Your task to perform on an android device: turn pop-ups off in chrome Image 0: 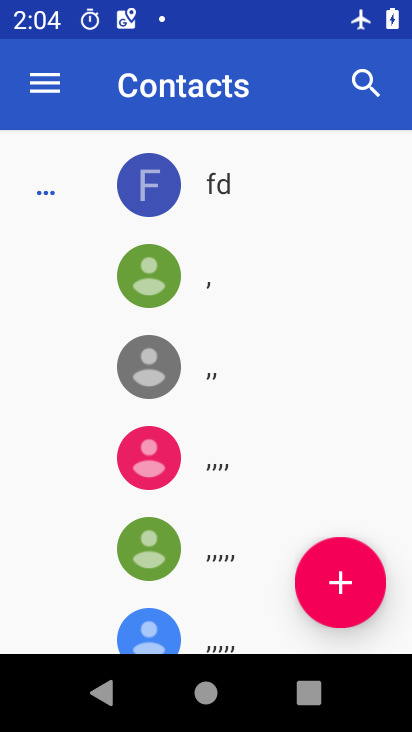
Step 0: press home button
Your task to perform on an android device: turn pop-ups off in chrome Image 1: 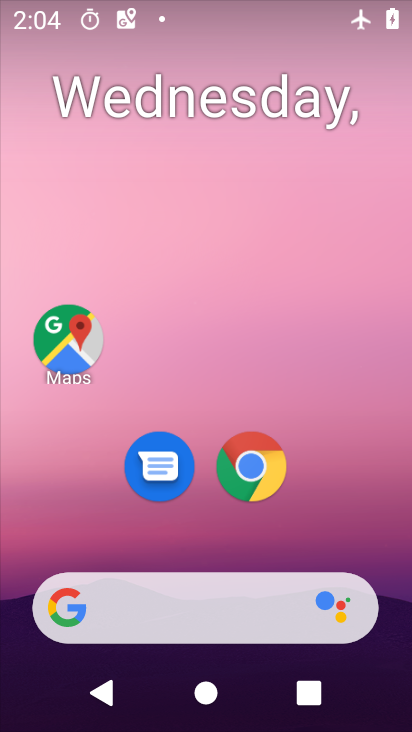
Step 1: click (266, 471)
Your task to perform on an android device: turn pop-ups off in chrome Image 2: 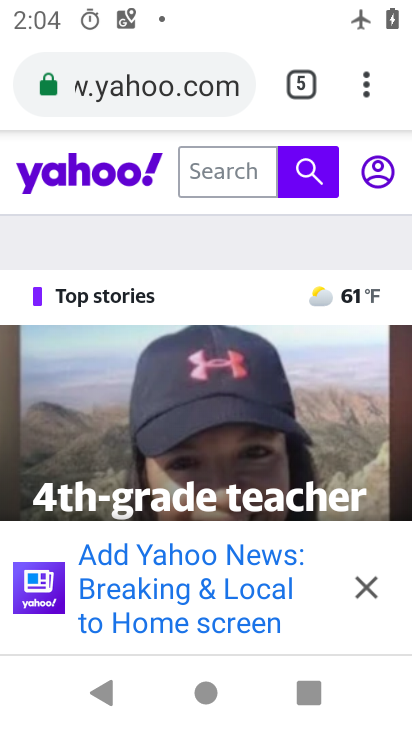
Step 2: click (350, 85)
Your task to perform on an android device: turn pop-ups off in chrome Image 3: 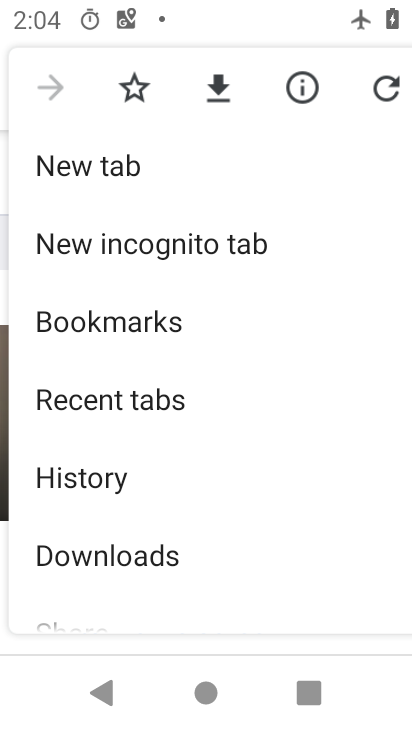
Step 3: drag from (226, 518) to (224, 298)
Your task to perform on an android device: turn pop-ups off in chrome Image 4: 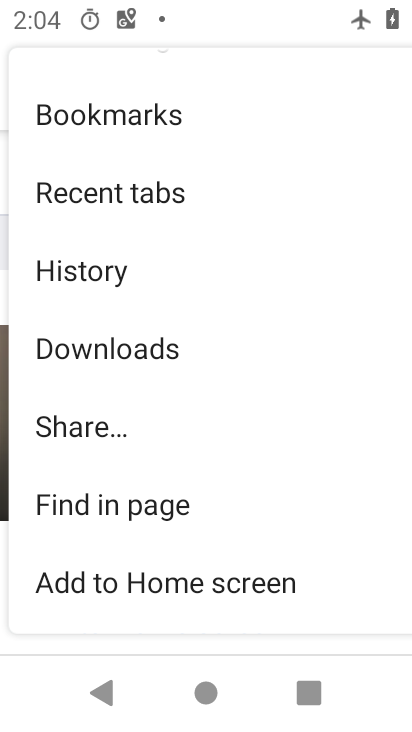
Step 4: drag from (156, 421) to (169, 280)
Your task to perform on an android device: turn pop-ups off in chrome Image 5: 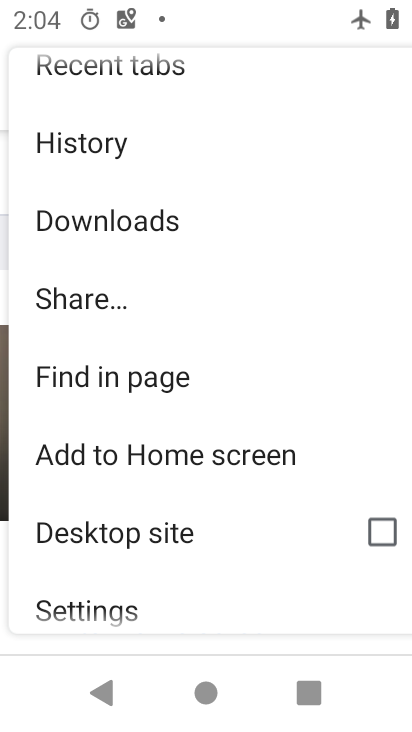
Step 5: drag from (110, 592) to (141, 280)
Your task to perform on an android device: turn pop-ups off in chrome Image 6: 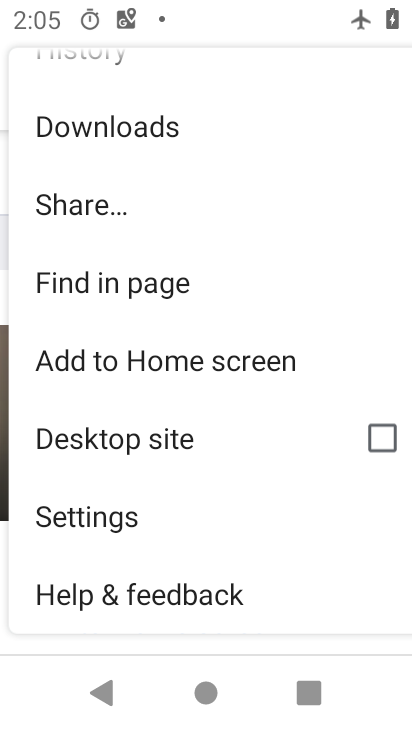
Step 6: click (111, 526)
Your task to perform on an android device: turn pop-ups off in chrome Image 7: 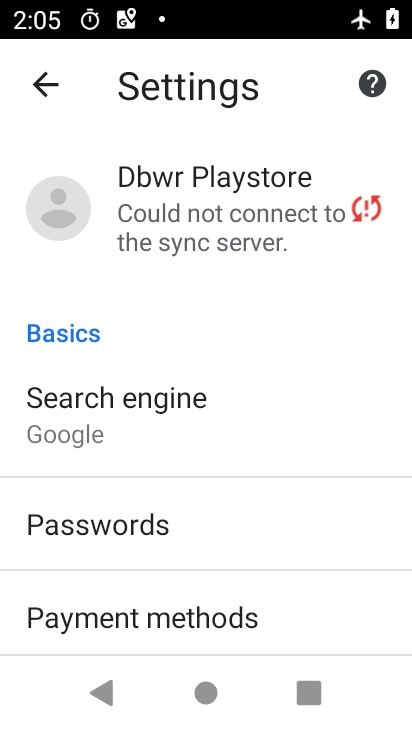
Step 7: drag from (227, 532) to (215, 305)
Your task to perform on an android device: turn pop-ups off in chrome Image 8: 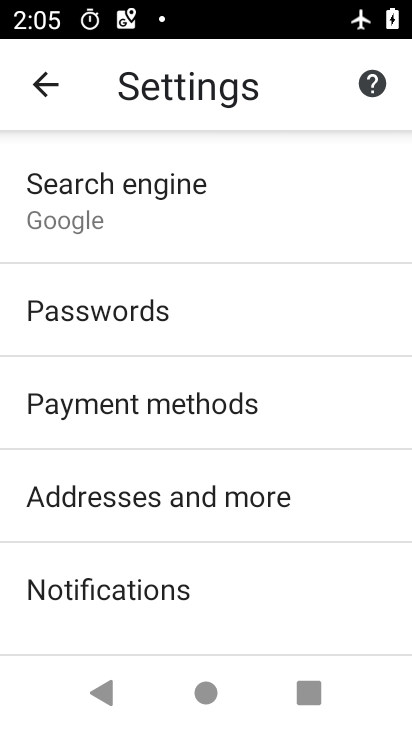
Step 8: drag from (222, 544) to (246, 267)
Your task to perform on an android device: turn pop-ups off in chrome Image 9: 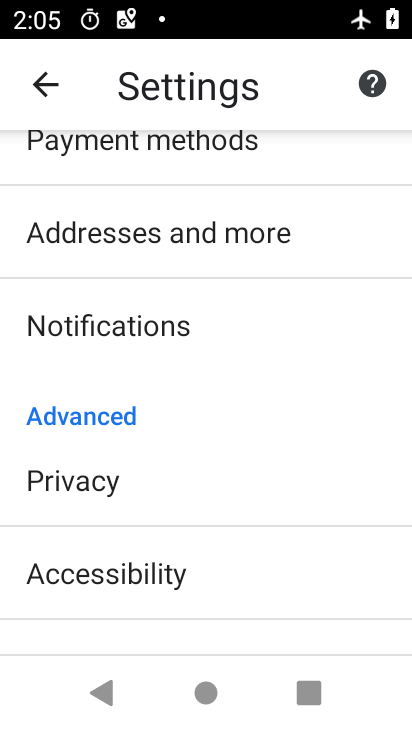
Step 9: drag from (211, 508) to (216, 297)
Your task to perform on an android device: turn pop-ups off in chrome Image 10: 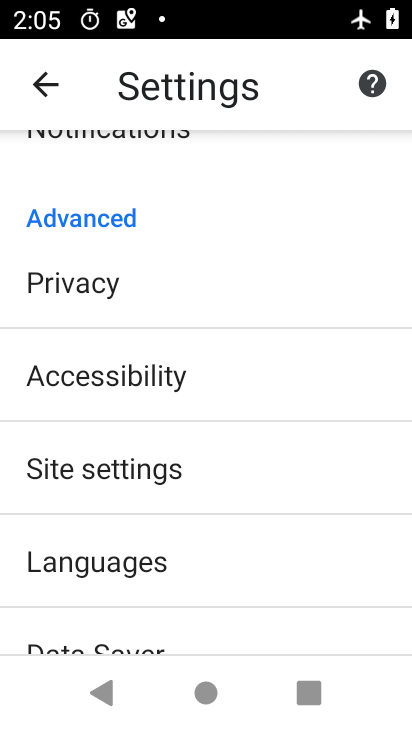
Step 10: click (165, 469)
Your task to perform on an android device: turn pop-ups off in chrome Image 11: 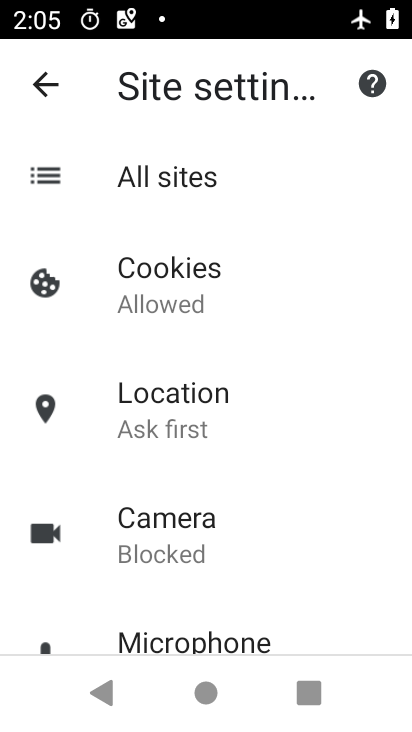
Step 11: drag from (234, 554) to (229, 328)
Your task to perform on an android device: turn pop-ups off in chrome Image 12: 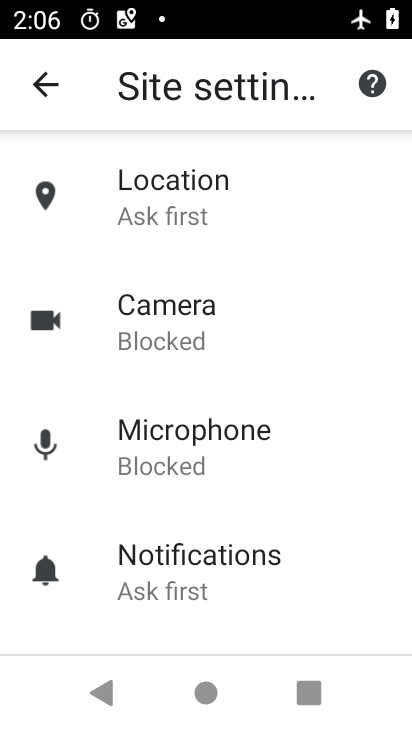
Step 12: drag from (272, 520) to (270, 204)
Your task to perform on an android device: turn pop-ups off in chrome Image 13: 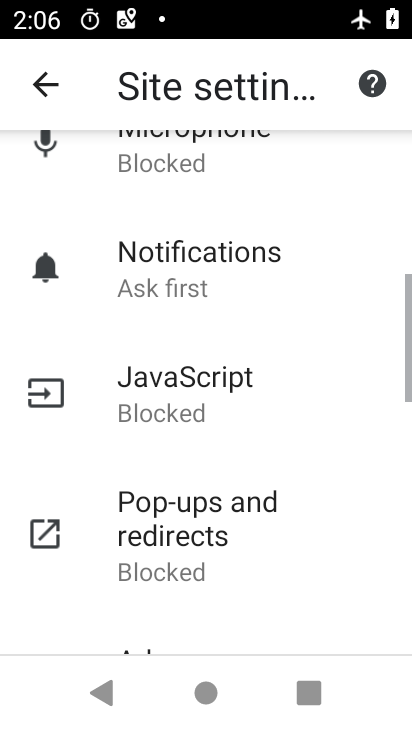
Step 13: drag from (241, 457) to (241, 404)
Your task to perform on an android device: turn pop-ups off in chrome Image 14: 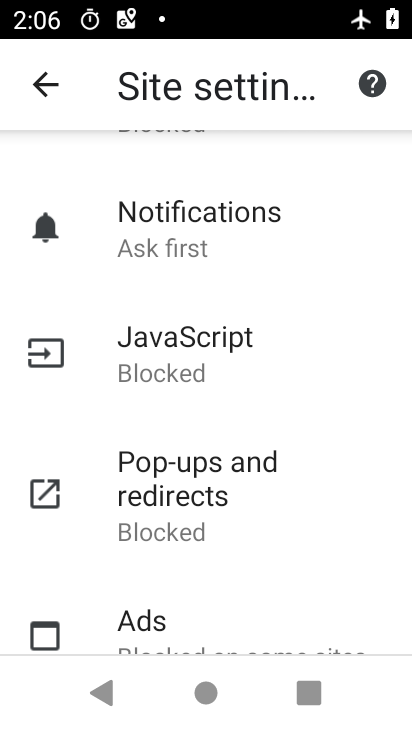
Step 14: click (217, 455)
Your task to perform on an android device: turn pop-ups off in chrome Image 15: 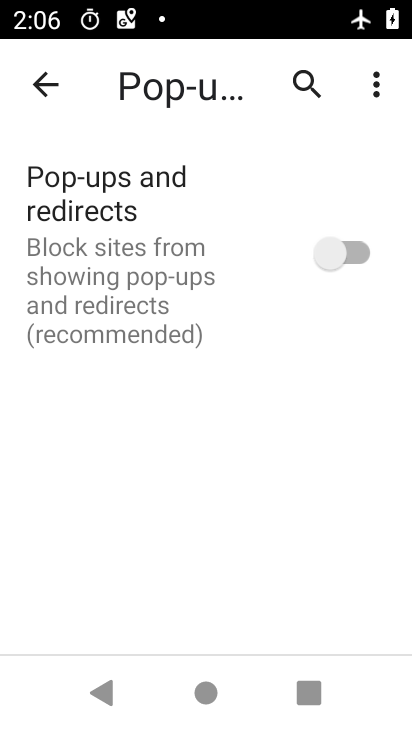
Step 15: task complete